Your task to perform on an android device: Open Yahoo.com Image 0: 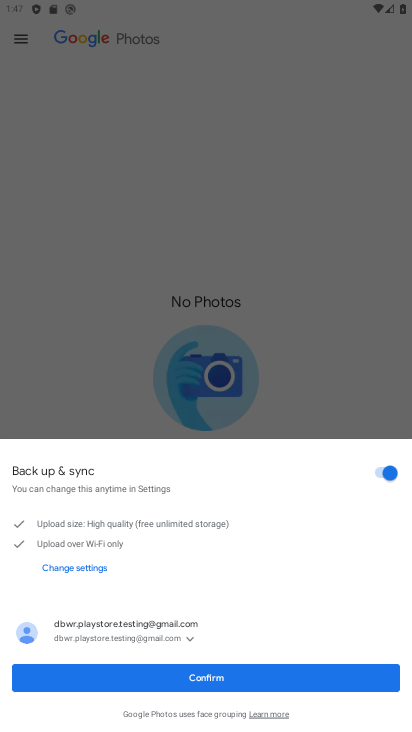
Step 0: press home button
Your task to perform on an android device: Open Yahoo.com Image 1: 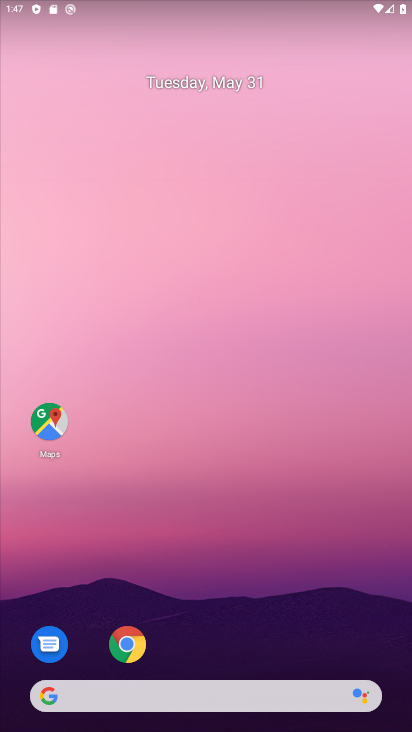
Step 1: click (130, 642)
Your task to perform on an android device: Open Yahoo.com Image 2: 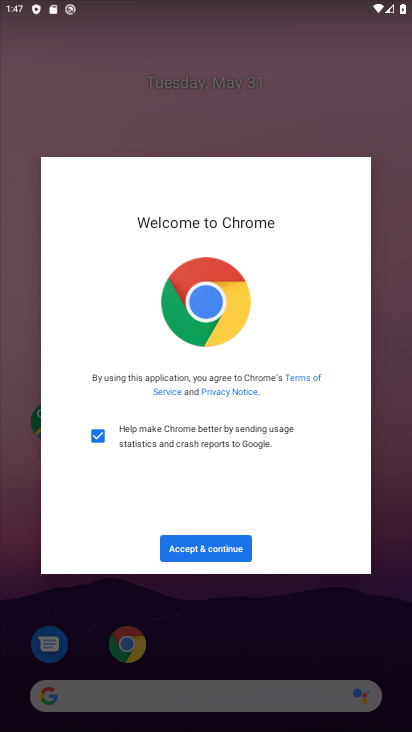
Step 2: click (235, 535)
Your task to perform on an android device: Open Yahoo.com Image 3: 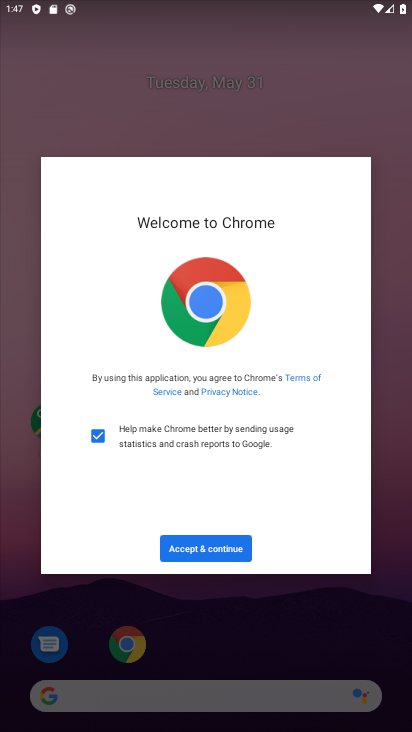
Step 3: click (226, 545)
Your task to perform on an android device: Open Yahoo.com Image 4: 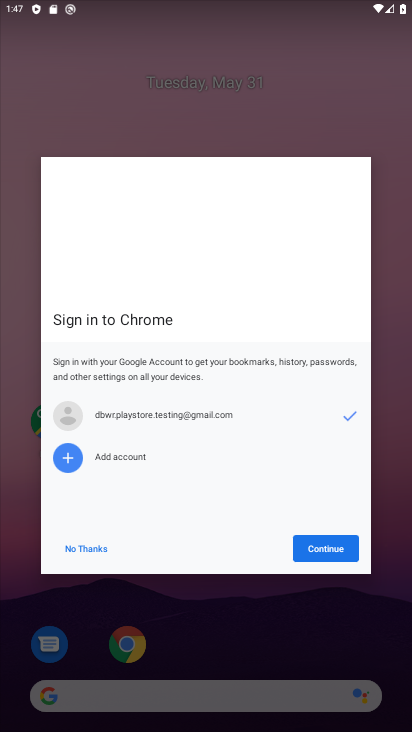
Step 4: click (225, 546)
Your task to perform on an android device: Open Yahoo.com Image 5: 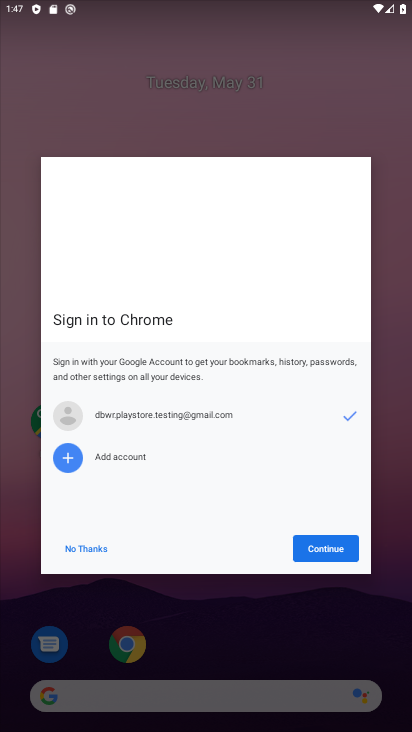
Step 5: click (321, 556)
Your task to perform on an android device: Open Yahoo.com Image 6: 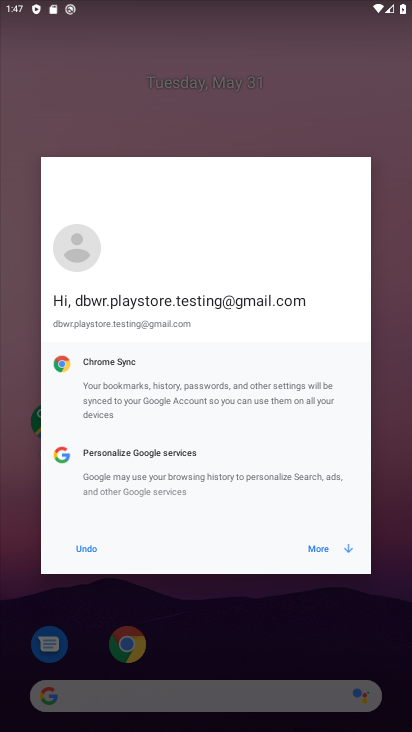
Step 6: click (328, 538)
Your task to perform on an android device: Open Yahoo.com Image 7: 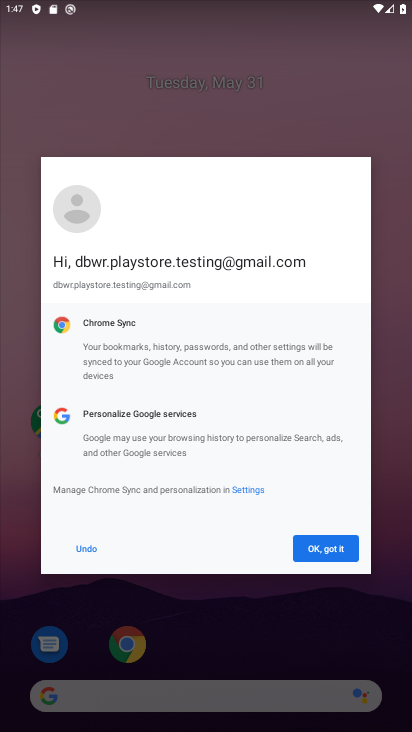
Step 7: click (323, 544)
Your task to perform on an android device: Open Yahoo.com Image 8: 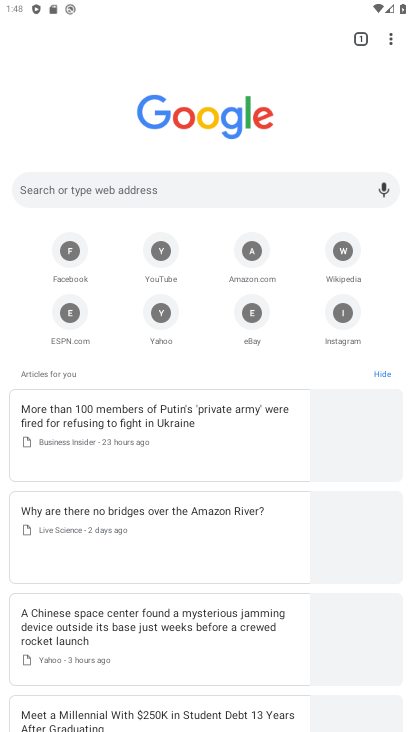
Step 8: click (162, 248)
Your task to perform on an android device: Open Yahoo.com Image 9: 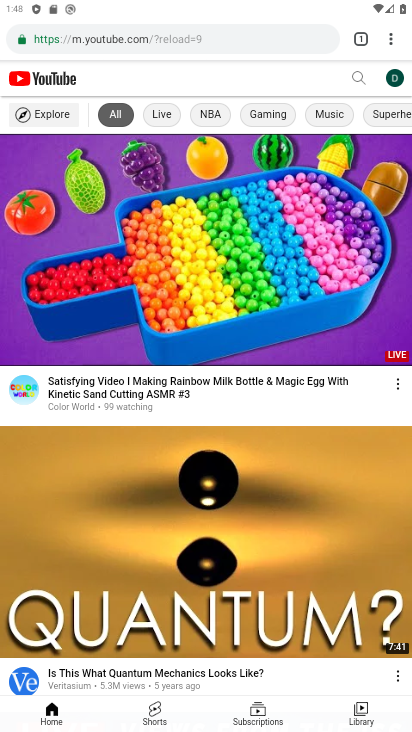
Step 9: press home button
Your task to perform on an android device: Open Yahoo.com Image 10: 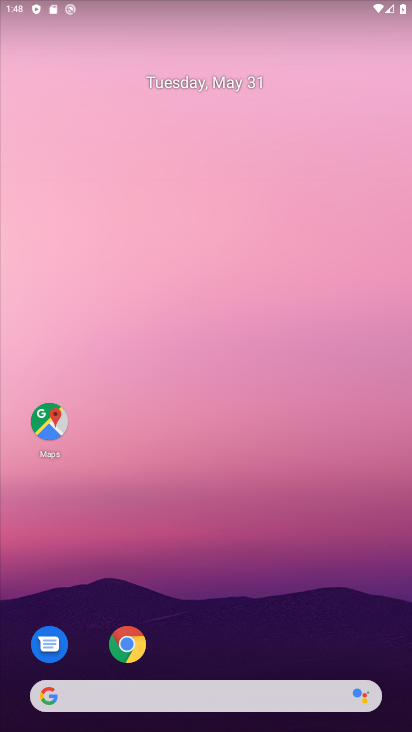
Step 10: click (125, 648)
Your task to perform on an android device: Open Yahoo.com Image 11: 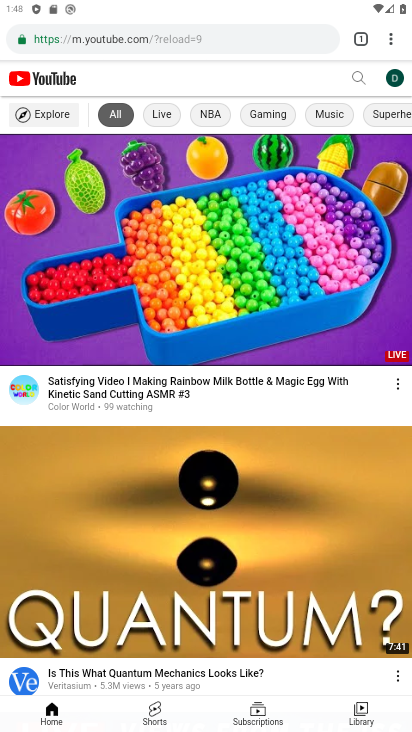
Step 11: click (150, 35)
Your task to perform on an android device: Open Yahoo.com Image 12: 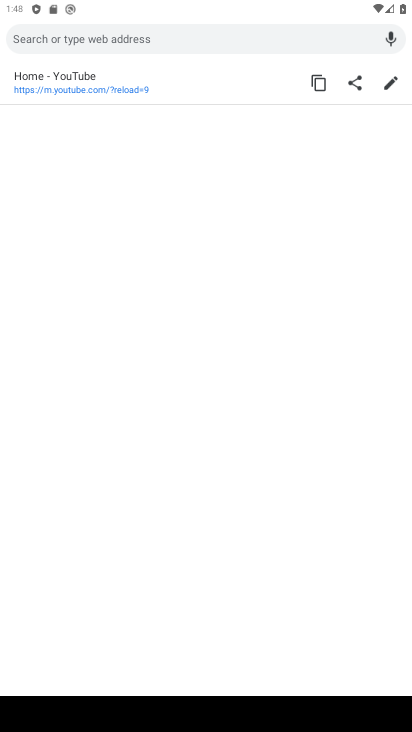
Step 12: type "yahoo.com"
Your task to perform on an android device: Open Yahoo.com Image 13: 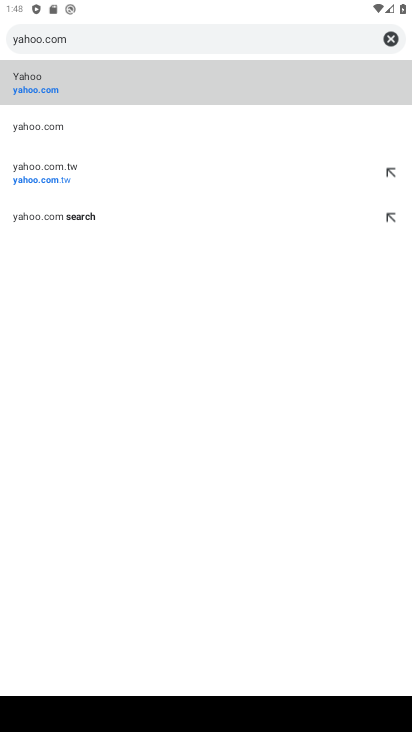
Step 13: click (36, 90)
Your task to perform on an android device: Open Yahoo.com Image 14: 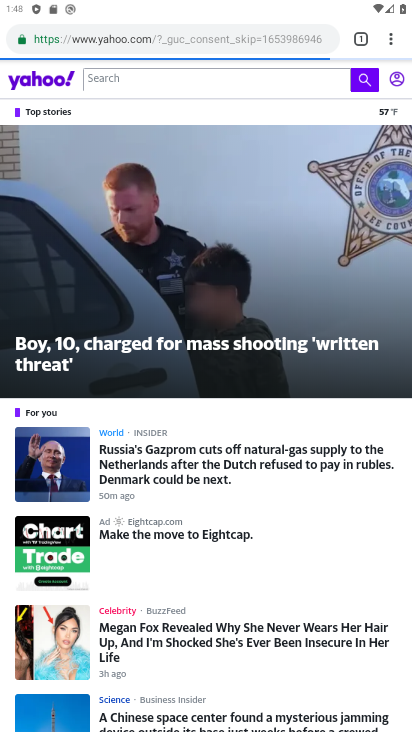
Step 14: task complete